Your task to perform on an android device: Do I have any events today? Image 0: 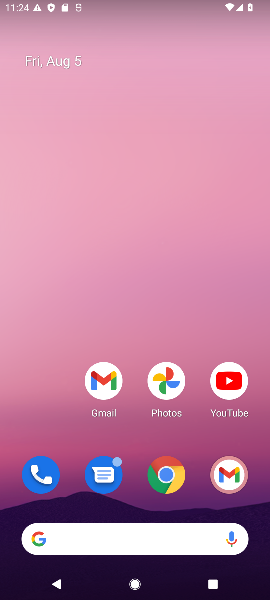
Step 0: drag from (132, 496) to (146, 4)
Your task to perform on an android device: Do I have any events today? Image 1: 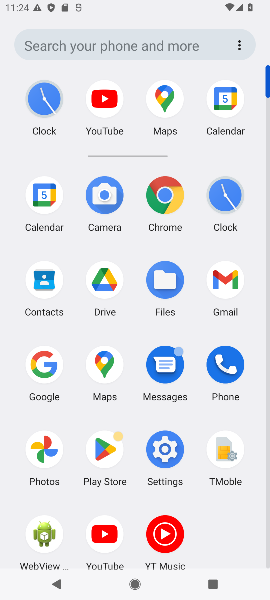
Step 1: click (53, 199)
Your task to perform on an android device: Do I have any events today? Image 2: 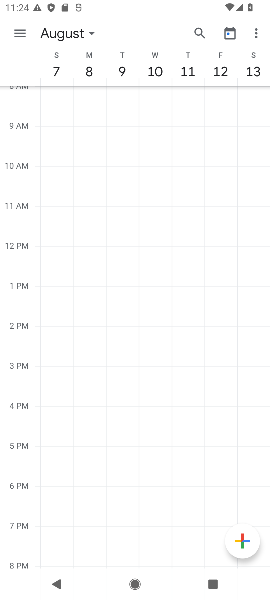
Step 2: drag from (71, 66) to (268, 83)
Your task to perform on an android device: Do I have any events today? Image 3: 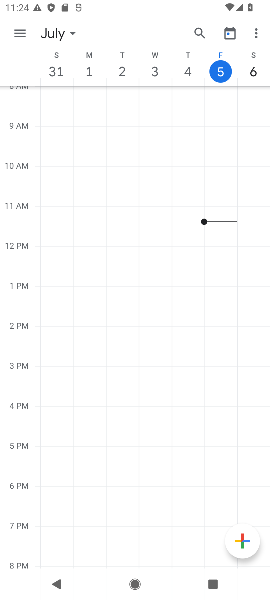
Step 3: click (25, 30)
Your task to perform on an android device: Do I have any events today? Image 4: 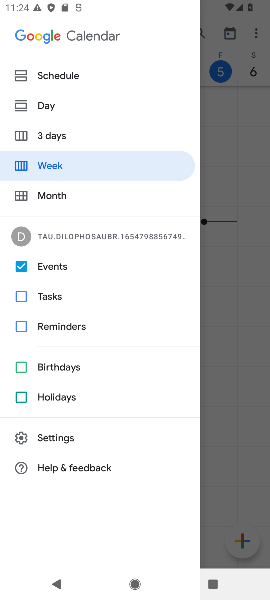
Step 4: click (49, 102)
Your task to perform on an android device: Do I have any events today? Image 5: 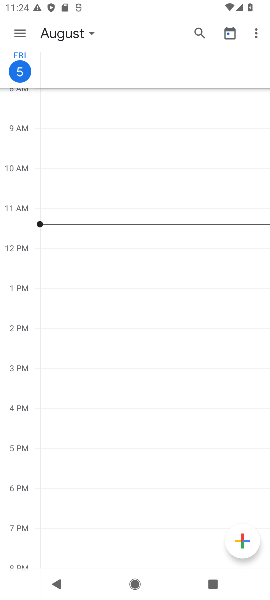
Step 5: task complete